Your task to perform on an android device: change the clock style Image 0: 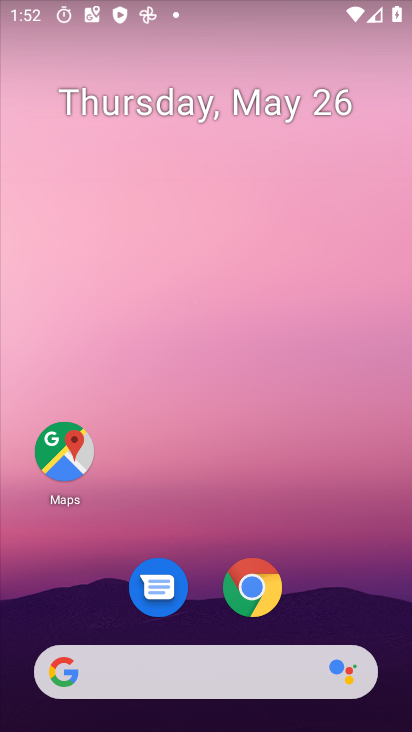
Step 0: drag from (373, 606) to (378, 115)
Your task to perform on an android device: change the clock style Image 1: 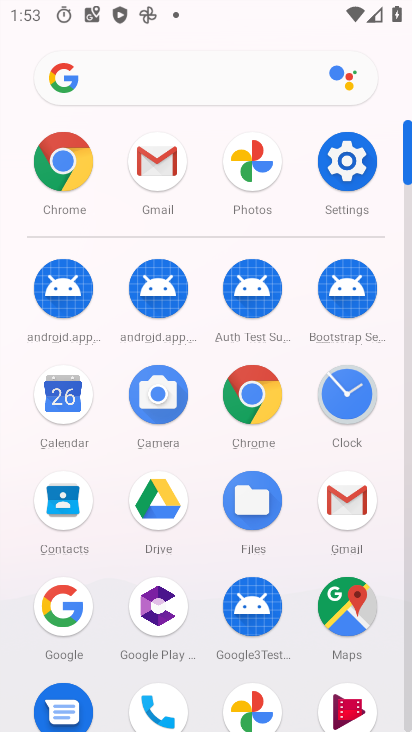
Step 1: click (358, 405)
Your task to perform on an android device: change the clock style Image 2: 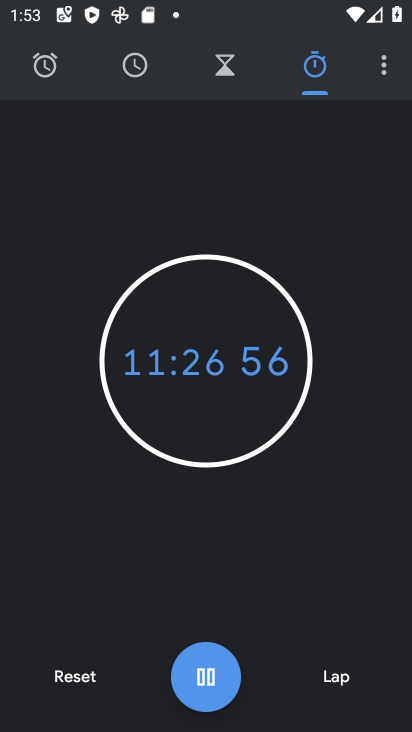
Step 2: click (386, 78)
Your task to perform on an android device: change the clock style Image 3: 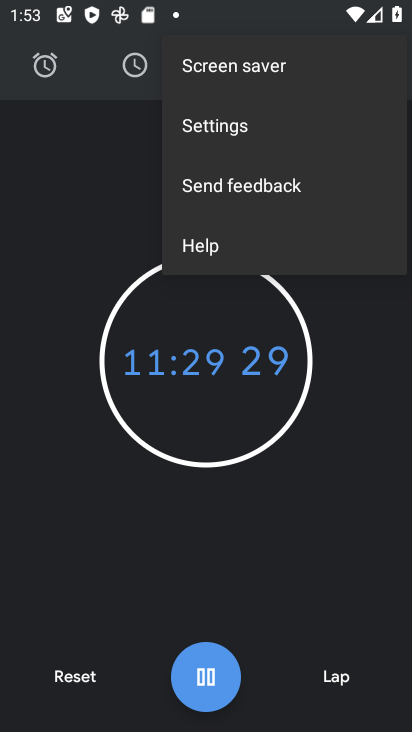
Step 3: click (254, 133)
Your task to perform on an android device: change the clock style Image 4: 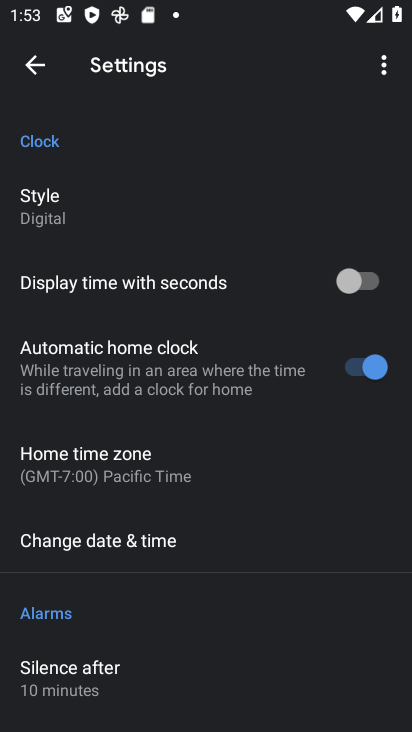
Step 4: drag from (283, 485) to (287, 377)
Your task to perform on an android device: change the clock style Image 5: 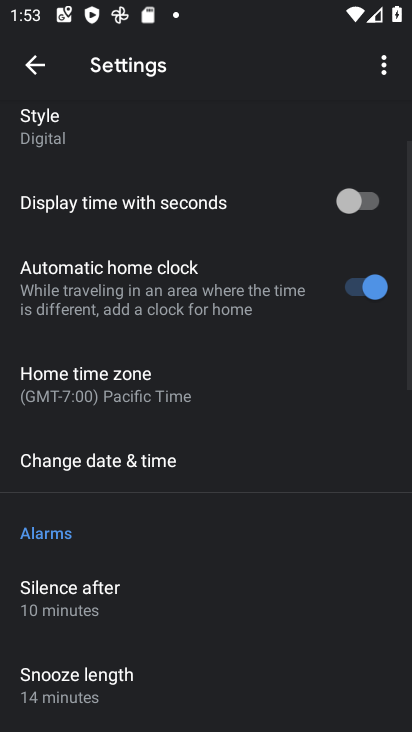
Step 5: drag from (282, 539) to (283, 402)
Your task to perform on an android device: change the clock style Image 6: 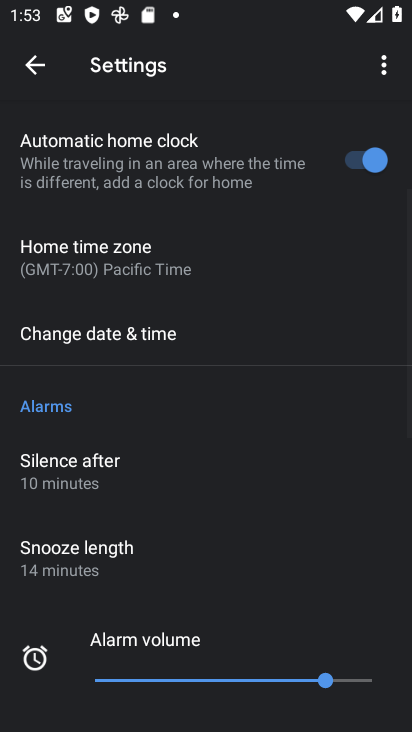
Step 6: drag from (280, 545) to (282, 434)
Your task to perform on an android device: change the clock style Image 7: 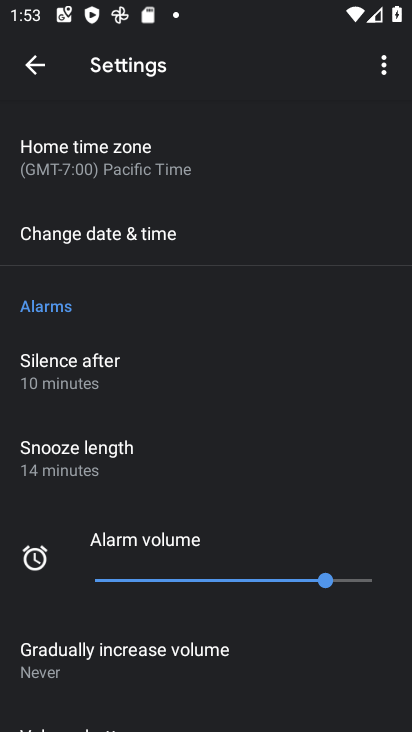
Step 7: drag from (254, 543) to (262, 370)
Your task to perform on an android device: change the clock style Image 8: 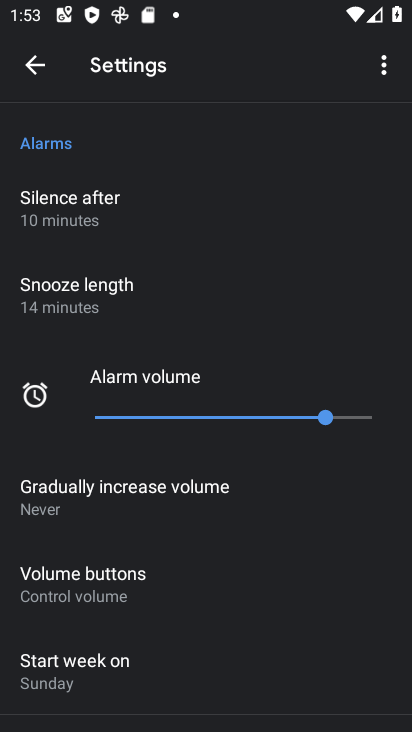
Step 8: drag from (263, 546) to (267, 437)
Your task to perform on an android device: change the clock style Image 9: 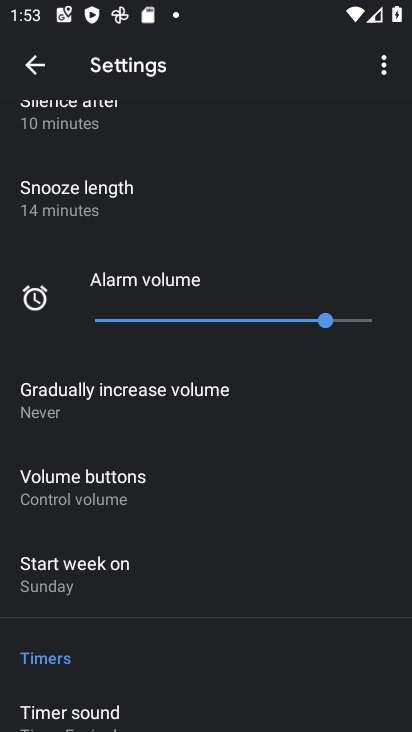
Step 9: drag from (268, 614) to (272, 499)
Your task to perform on an android device: change the clock style Image 10: 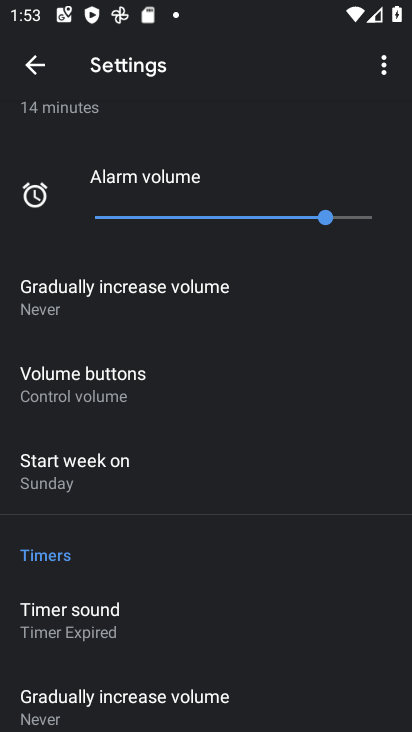
Step 10: drag from (271, 610) to (302, 411)
Your task to perform on an android device: change the clock style Image 11: 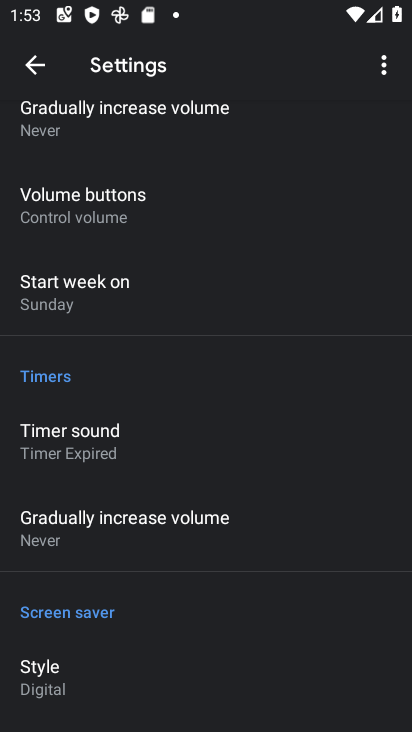
Step 11: drag from (301, 605) to (303, 459)
Your task to perform on an android device: change the clock style Image 12: 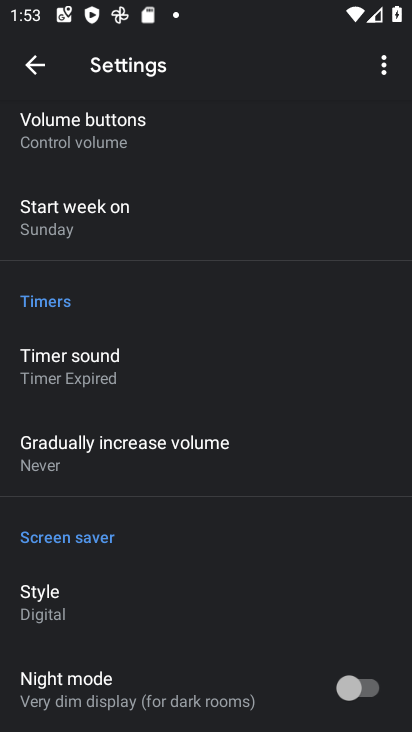
Step 12: drag from (317, 301) to (317, 432)
Your task to perform on an android device: change the clock style Image 13: 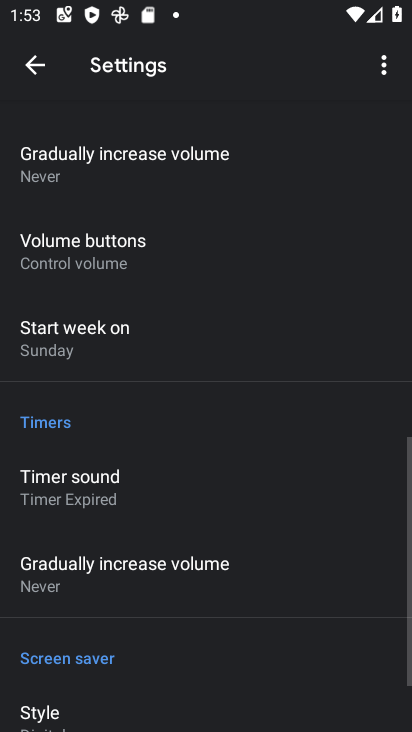
Step 13: drag from (328, 288) to (329, 404)
Your task to perform on an android device: change the clock style Image 14: 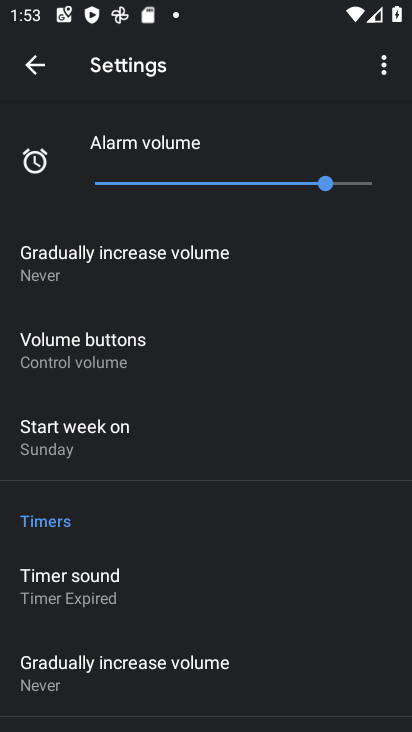
Step 14: drag from (334, 254) to (329, 362)
Your task to perform on an android device: change the clock style Image 15: 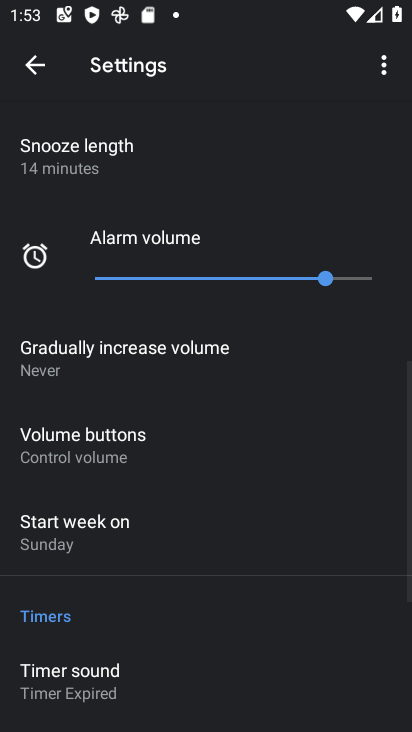
Step 15: drag from (349, 206) to (350, 323)
Your task to perform on an android device: change the clock style Image 16: 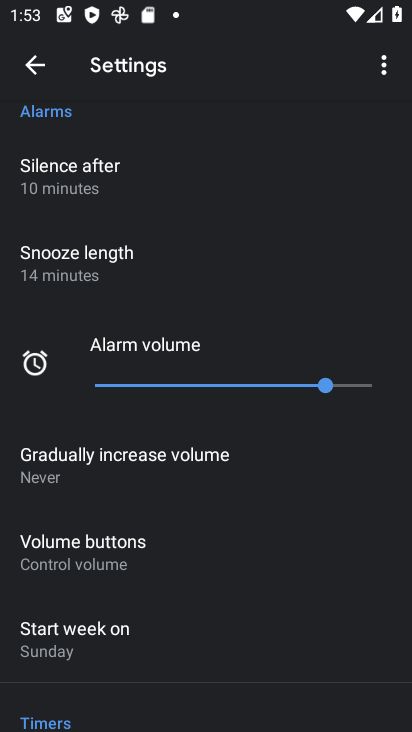
Step 16: drag from (350, 214) to (346, 325)
Your task to perform on an android device: change the clock style Image 17: 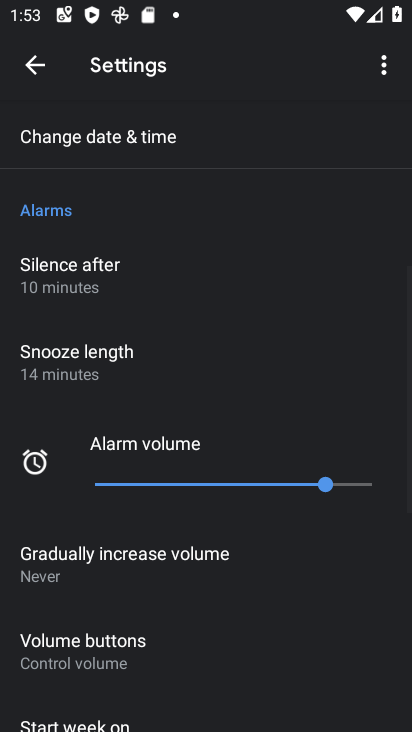
Step 17: drag from (342, 208) to (339, 295)
Your task to perform on an android device: change the clock style Image 18: 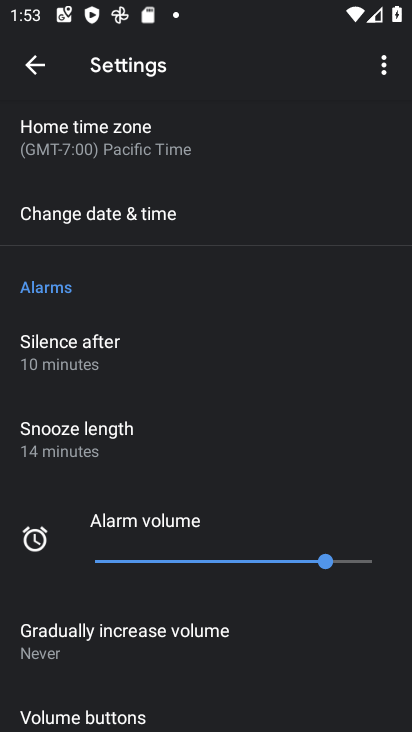
Step 18: drag from (337, 186) to (335, 291)
Your task to perform on an android device: change the clock style Image 19: 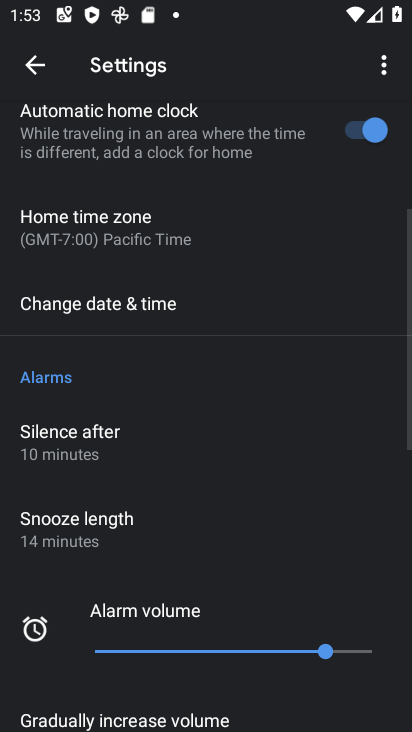
Step 19: drag from (331, 192) to (327, 290)
Your task to perform on an android device: change the clock style Image 20: 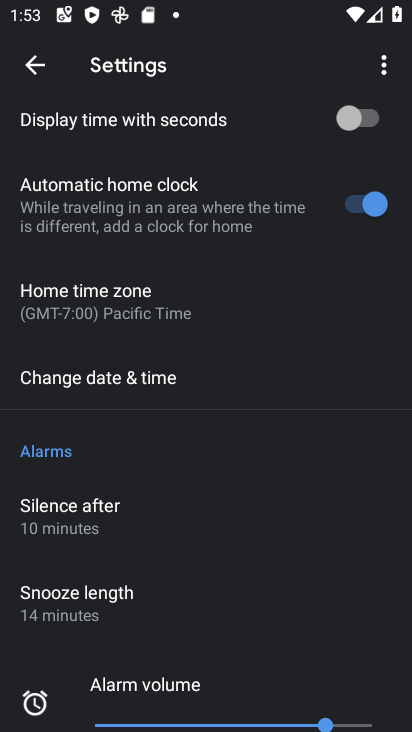
Step 20: drag from (298, 146) to (291, 284)
Your task to perform on an android device: change the clock style Image 21: 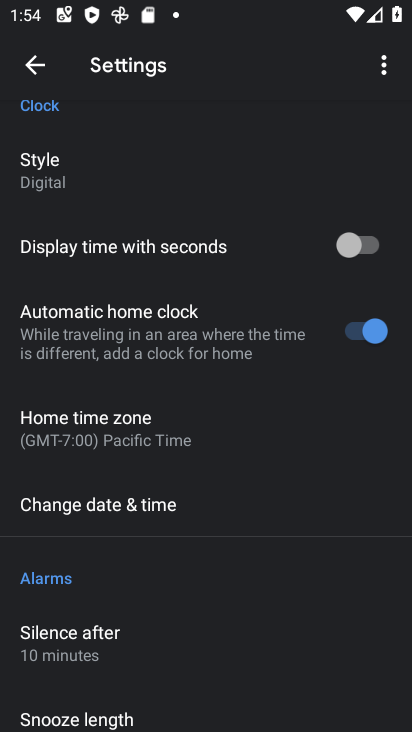
Step 21: drag from (251, 167) to (241, 299)
Your task to perform on an android device: change the clock style Image 22: 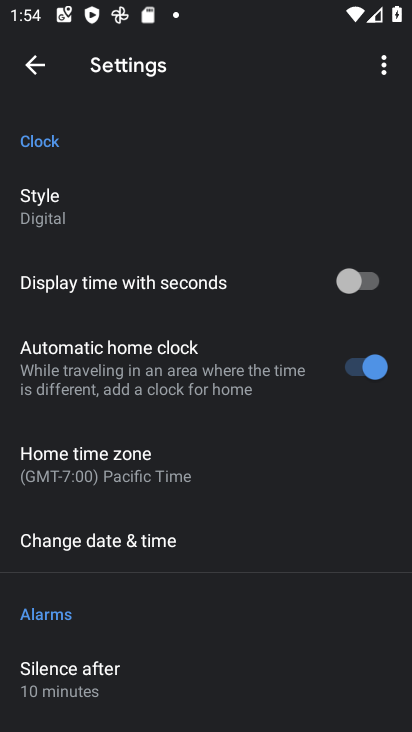
Step 22: click (63, 218)
Your task to perform on an android device: change the clock style Image 23: 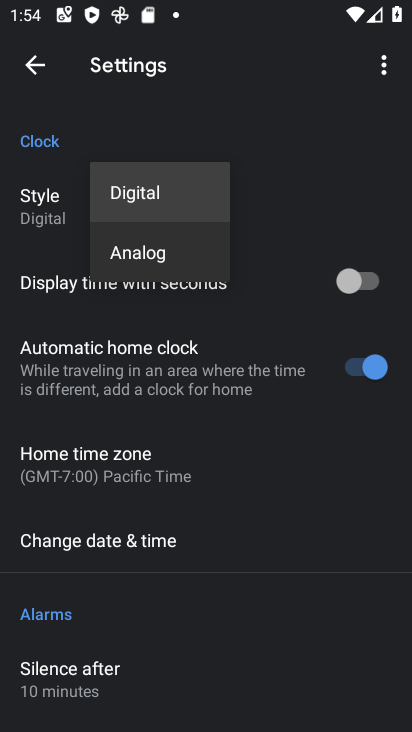
Step 23: click (145, 245)
Your task to perform on an android device: change the clock style Image 24: 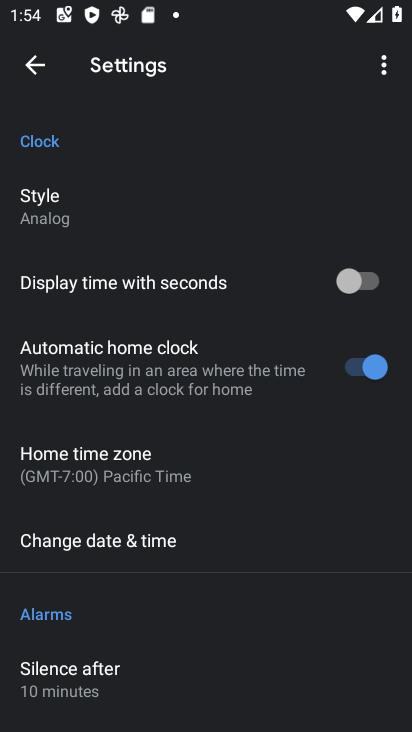
Step 24: task complete